Your task to perform on an android device: change the clock style Image 0: 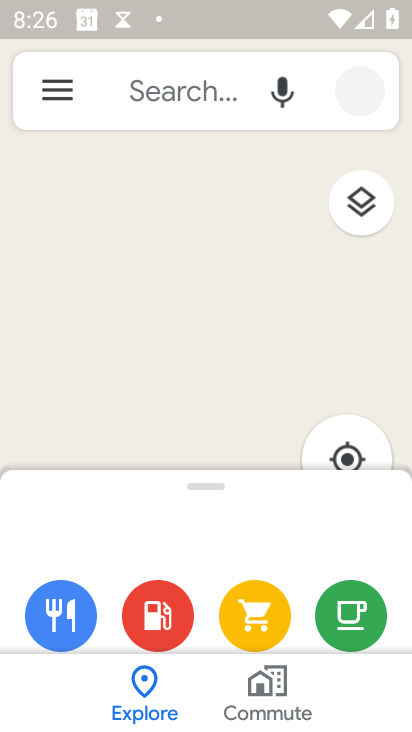
Step 0: click (266, 235)
Your task to perform on an android device: change the clock style Image 1: 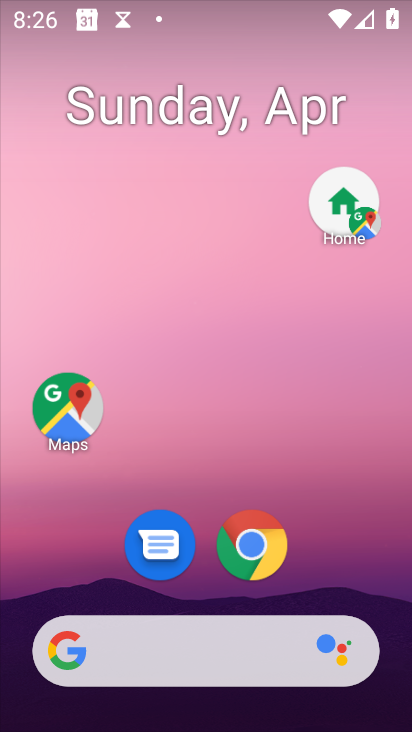
Step 1: press home button
Your task to perform on an android device: change the clock style Image 2: 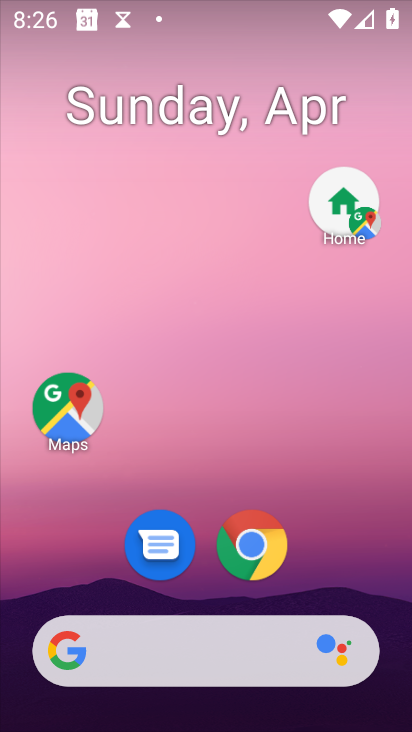
Step 2: drag from (331, 534) to (321, 234)
Your task to perform on an android device: change the clock style Image 3: 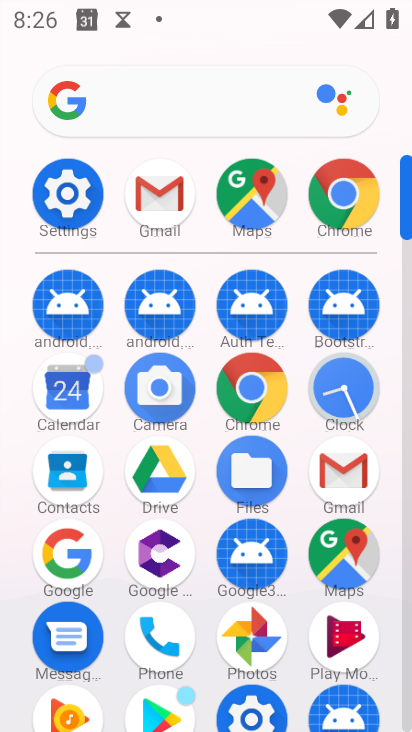
Step 3: click (343, 391)
Your task to perform on an android device: change the clock style Image 4: 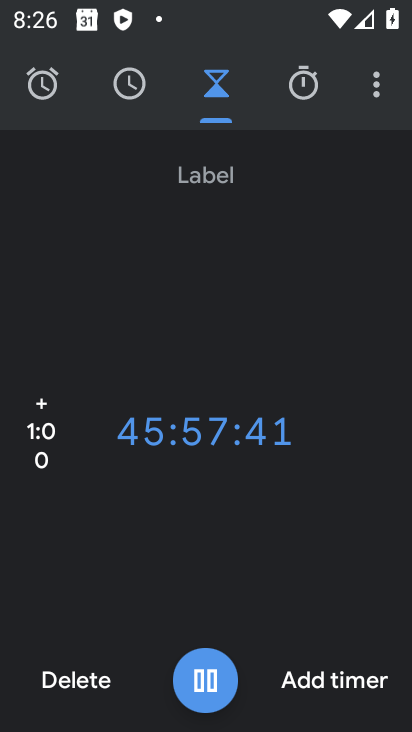
Step 4: click (375, 83)
Your task to perform on an android device: change the clock style Image 5: 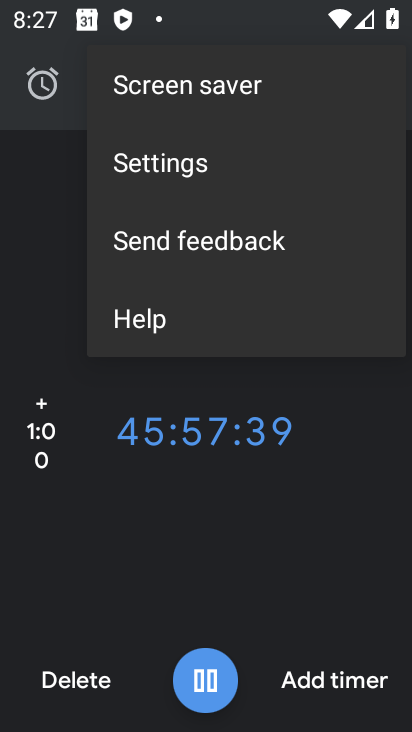
Step 5: click (238, 174)
Your task to perform on an android device: change the clock style Image 6: 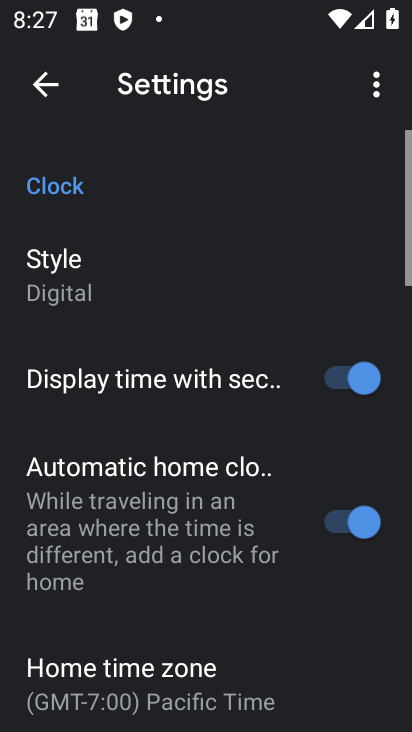
Step 6: click (93, 276)
Your task to perform on an android device: change the clock style Image 7: 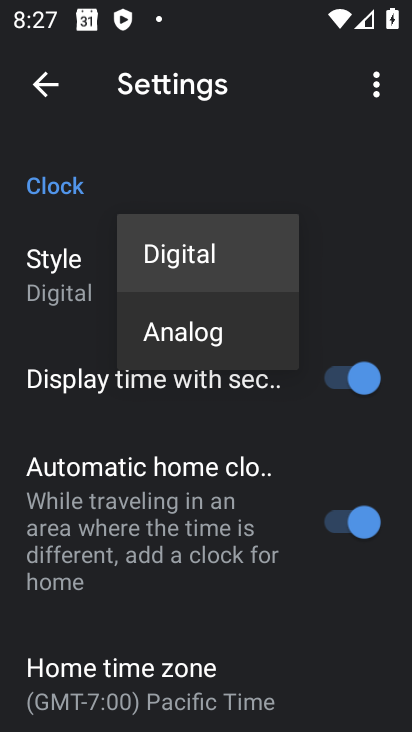
Step 7: click (160, 344)
Your task to perform on an android device: change the clock style Image 8: 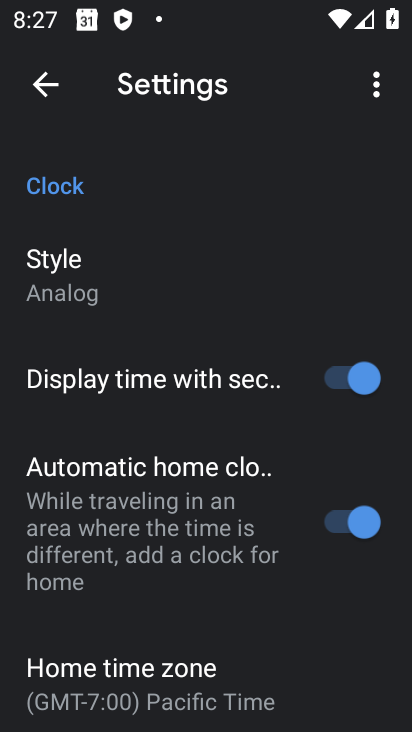
Step 8: task complete